Your task to perform on an android device: move a message to another label in the gmail app Image 0: 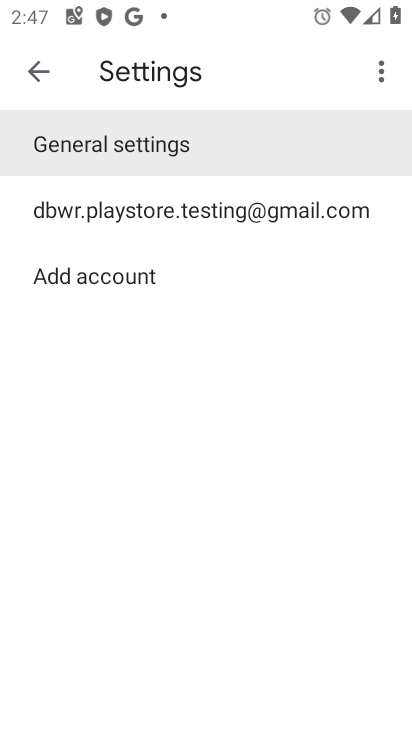
Step 0: press home button
Your task to perform on an android device: move a message to another label in the gmail app Image 1: 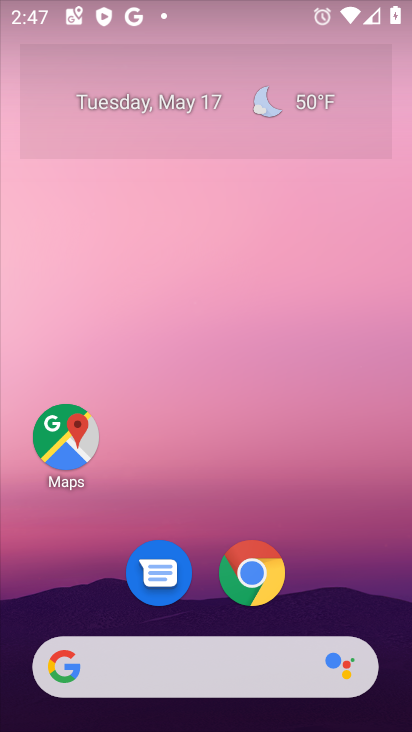
Step 1: drag from (326, 445) to (312, 98)
Your task to perform on an android device: move a message to another label in the gmail app Image 2: 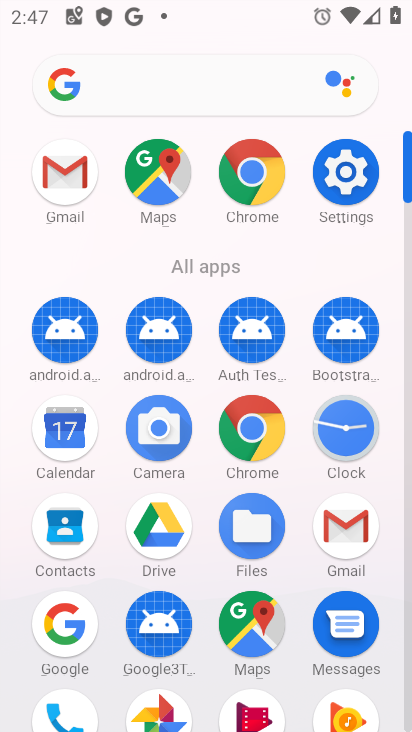
Step 2: click (65, 160)
Your task to perform on an android device: move a message to another label in the gmail app Image 3: 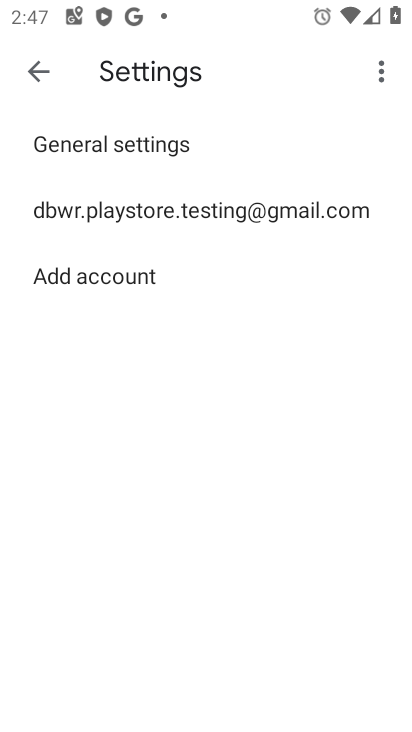
Step 3: click (30, 66)
Your task to perform on an android device: move a message to another label in the gmail app Image 4: 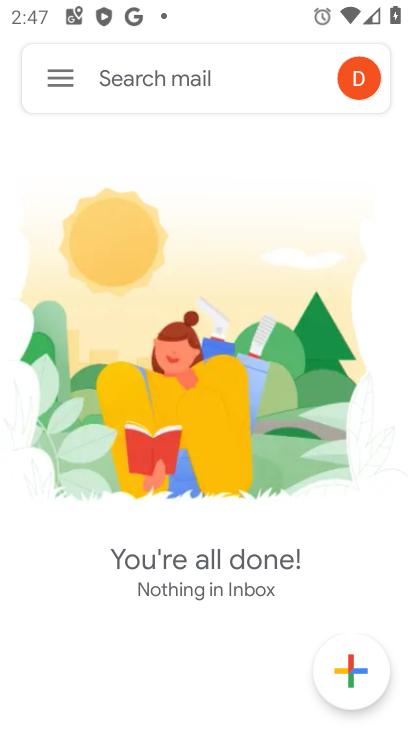
Step 4: click (60, 77)
Your task to perform on an android device: move a message to another label in the gmail app Image 5: 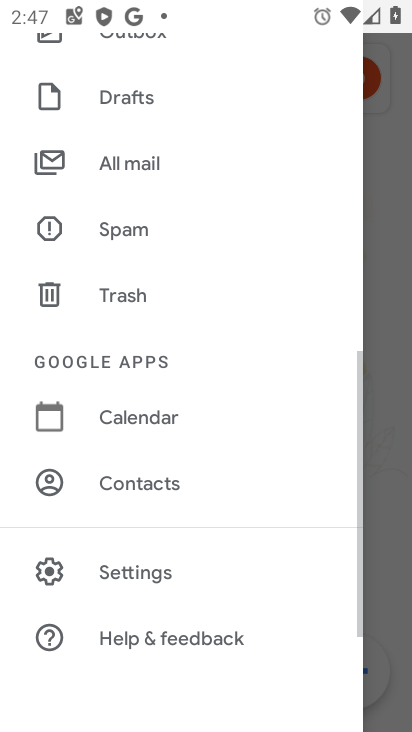
Step 5: click (130, 175)
Your task to perform on an android device: move a message to another label in the gmail app Image 6: 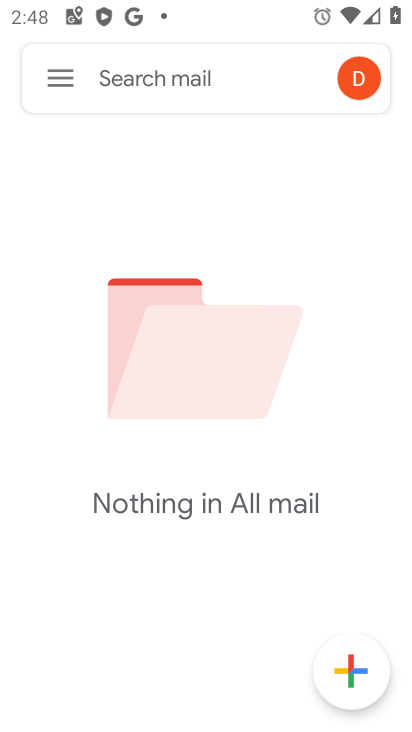
Step 6: task complete